Your task to perform on an android device: change notification settings in the gmail app Image 0: 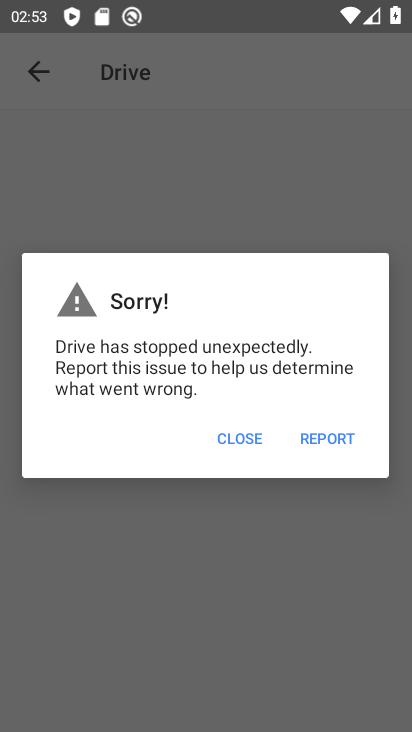
Step 0: press home button
Your task to perform on an android device: change notification settings in the gmail app Image 1: 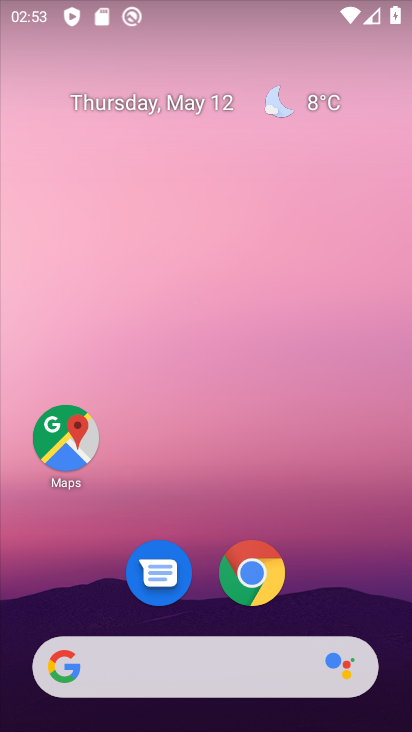
Step 1: drag from (334, 527) to (340, 114)
Your task to perform on an android device: change notification settings in the gmail app Image 2: 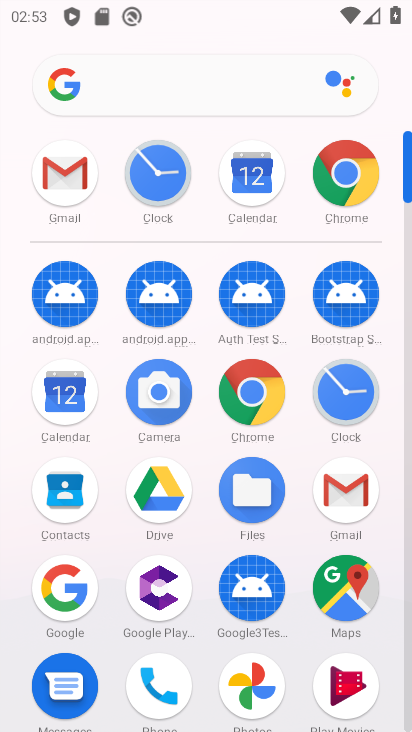
Step 2: click (347, 485)
Your task to perform on an android device: change notification settings in the gmail app Image 3: 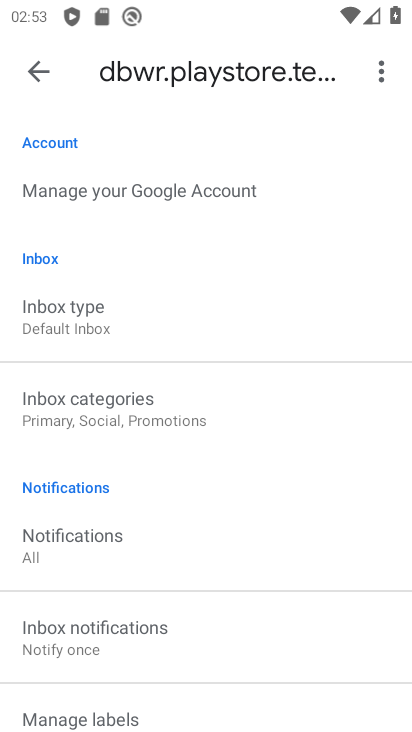
Step 3: press home button
Your task to perform on an android device: change notification settings in the gmail app Image 4: 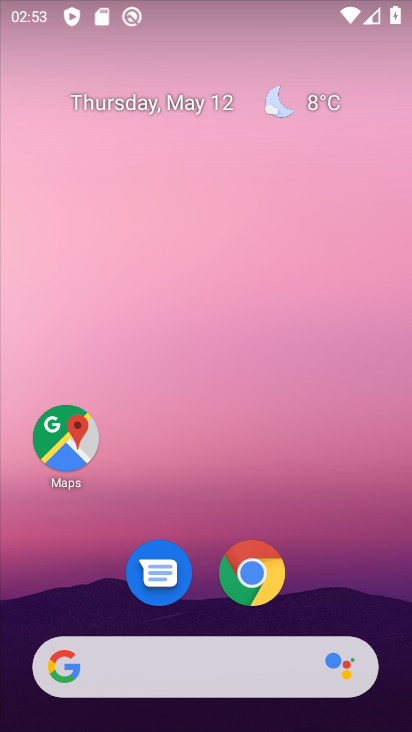
Step 4: drag from (322, 598) to (329, 1)
Your task to perform on an android device: change notification settings in the gmail app Image 5: 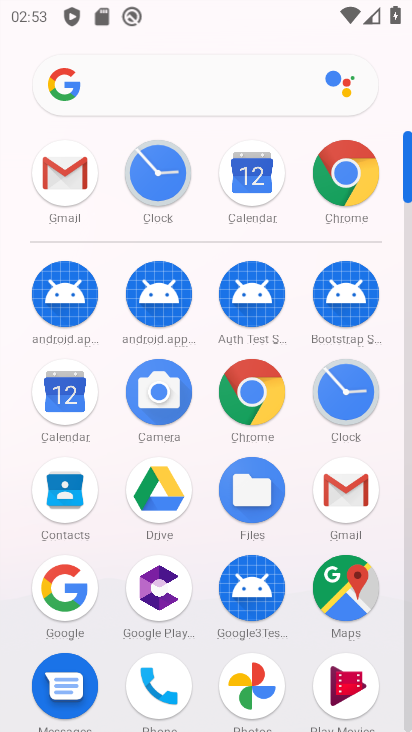
Step 5: click (332, 502)
Your task to perform on an android device: change notification settings in the gmail app Image 6: 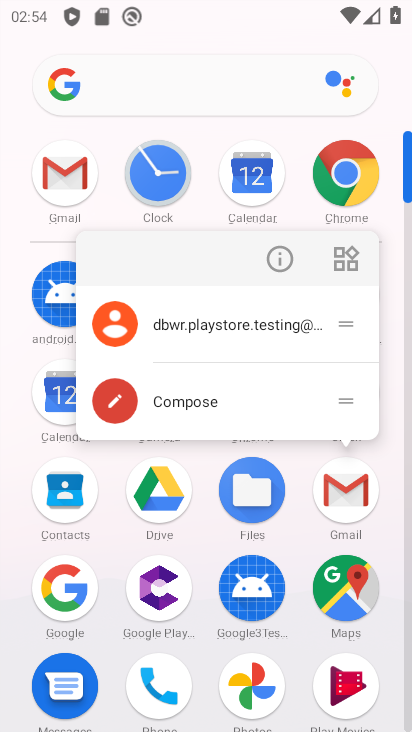
Step 6: click (280, 252)
Your task to perform on an android device: change notification settings in the gmail app Image 7: 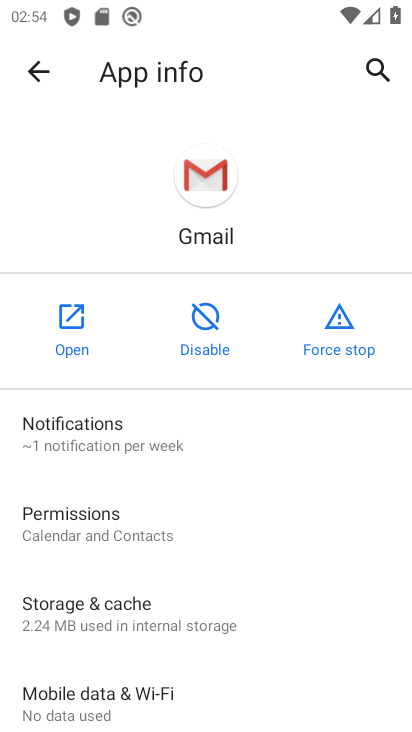
Step 7: click (207, 430)
Your task to perform on an android device: change notification settings in the gmail app Image 8: 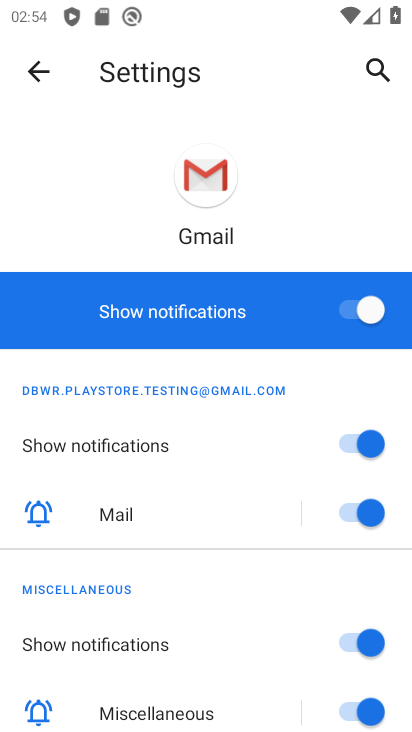
Step 8: click (373, 320)
Your task to perform on an android device: change notification settings in the gmail app Image 9: 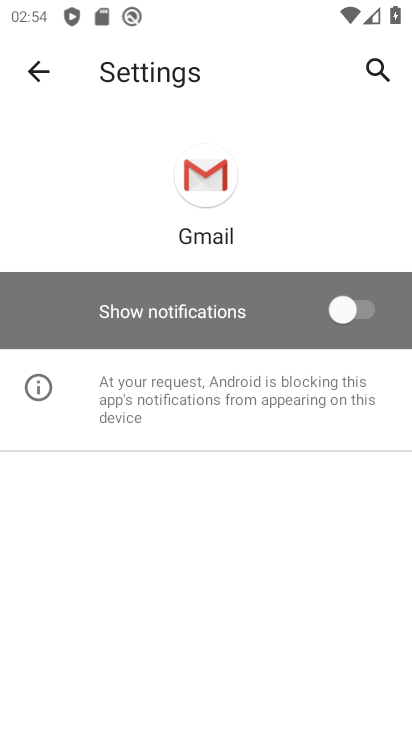
Step 9: task complete